Your task to perform on an android device: open app "Microsoft Outlook" (install if not already installed), go to login, and select forgot password Image 0: 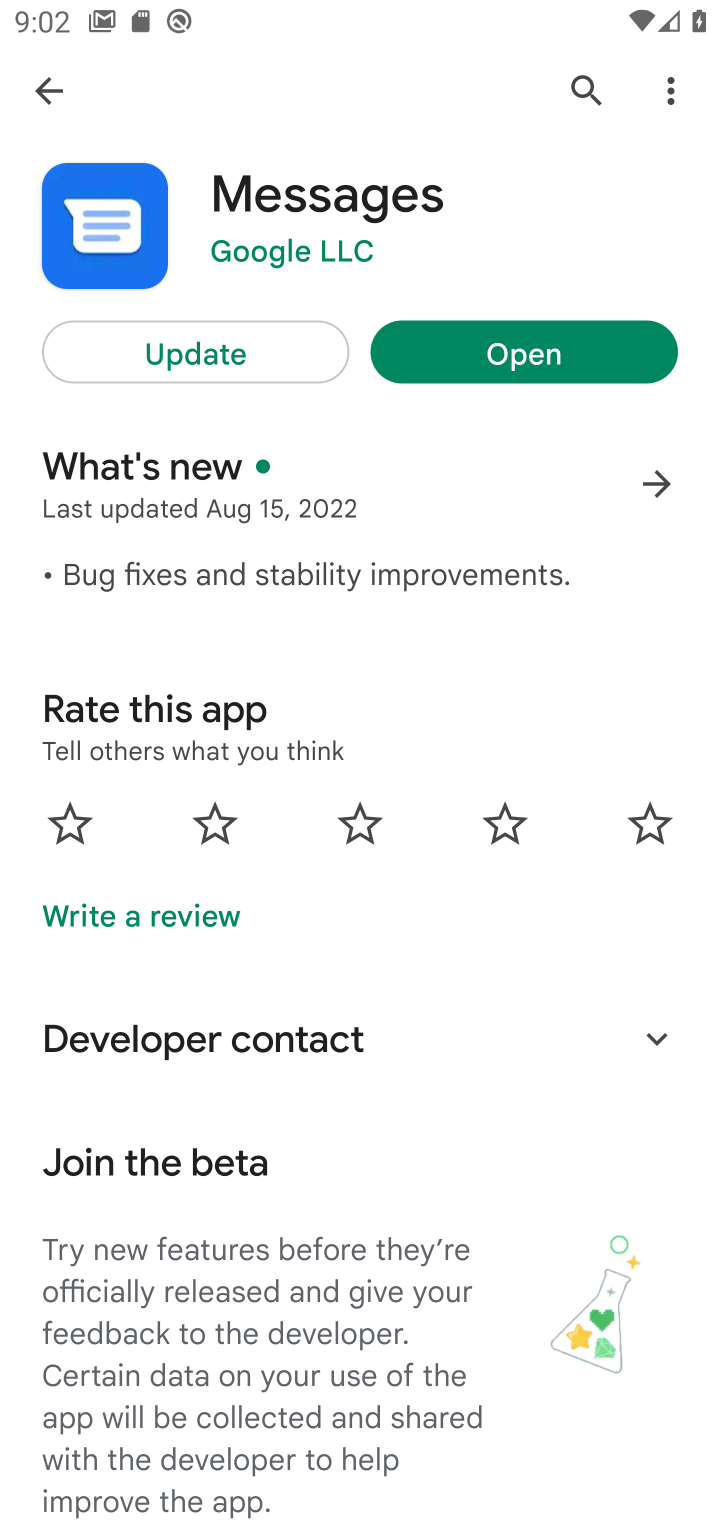
Step 0: press home button
Your task to perform on an android device: open app "Microsoft Outlook" (install if not already installed), go to login, and select forgot password Image 1: 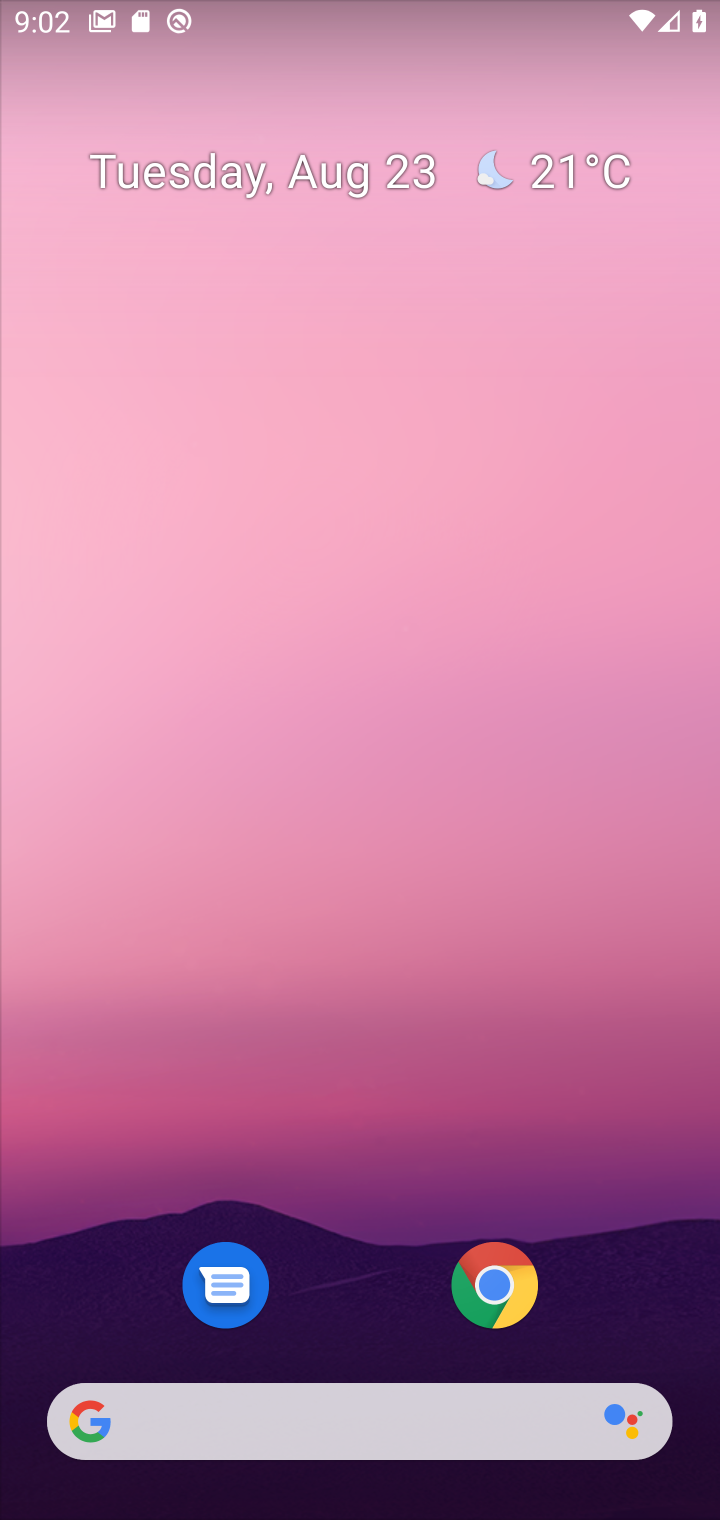
Step 1: drag from (669, 1332) to (587, 189)
Your task to perform on an android device: open app "Microsoft Outlook" (install if not already installed), go to login, and select forgot password Image 2: 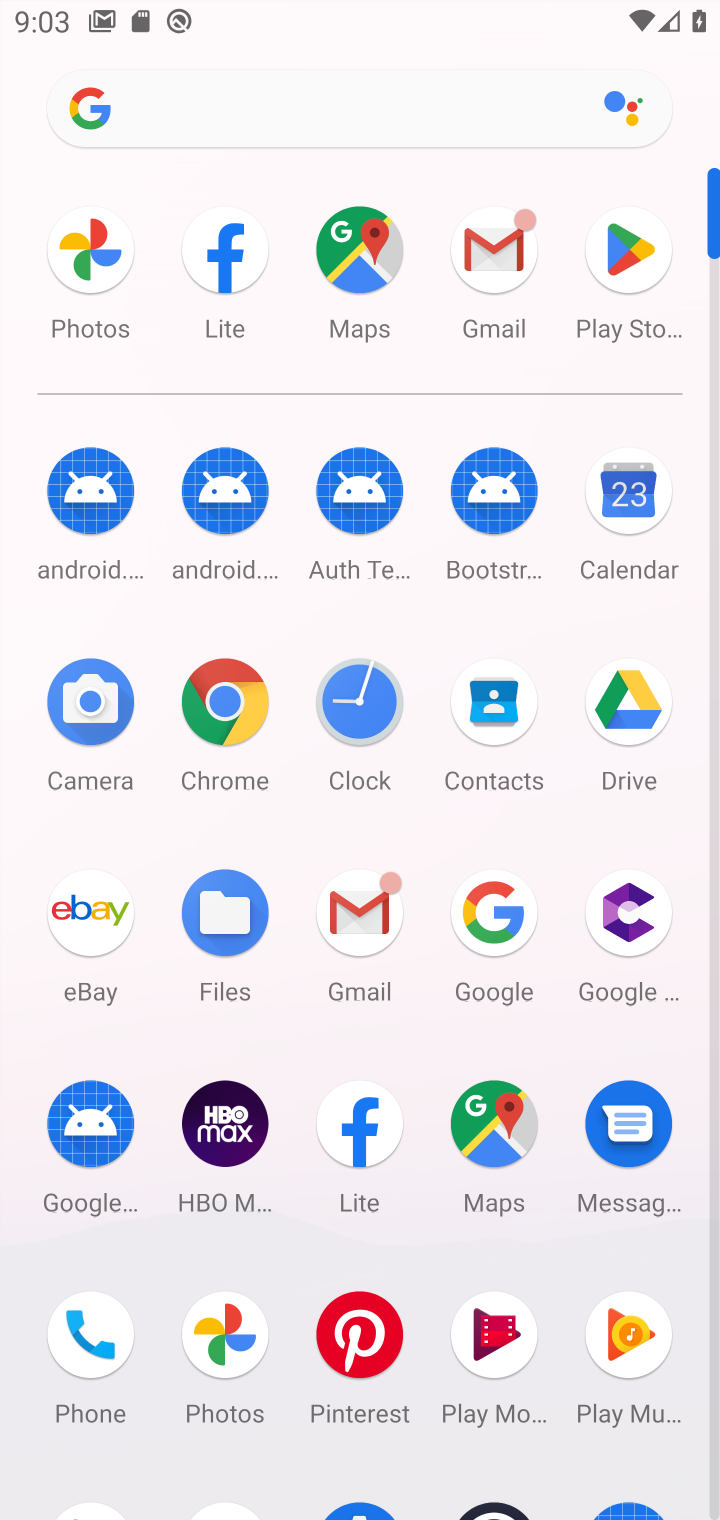
Step 2: drag from (291, 1447) to (277, 778)
Your task to perform on an android device: open app "Microsoft Outlook" (install if not already installed), go to login, and select forgot password Image 3: 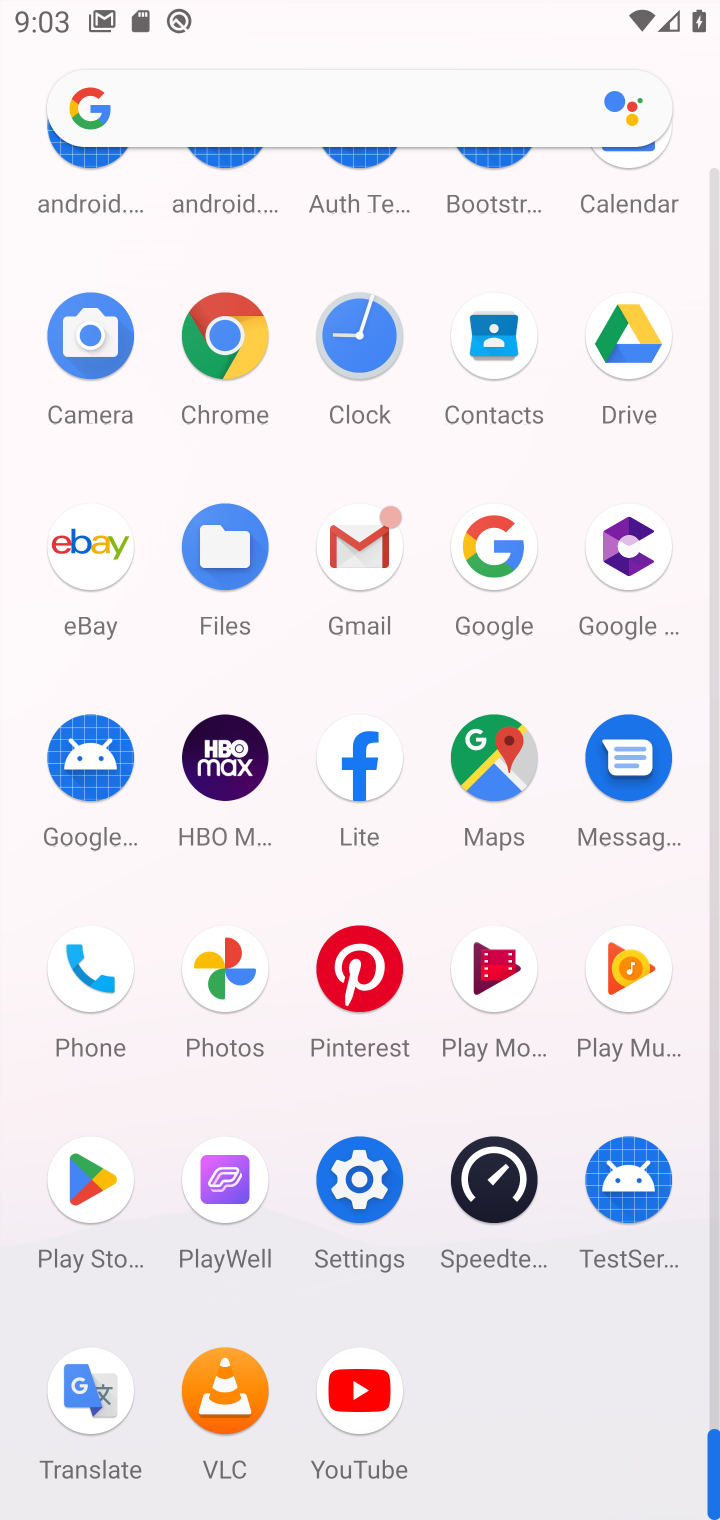
Step 3: click (98, 1182)
Your task to perform on an android device: open app "Microsoft Outlook" (install if not already installed), go to login, and select forgot password Image 4: 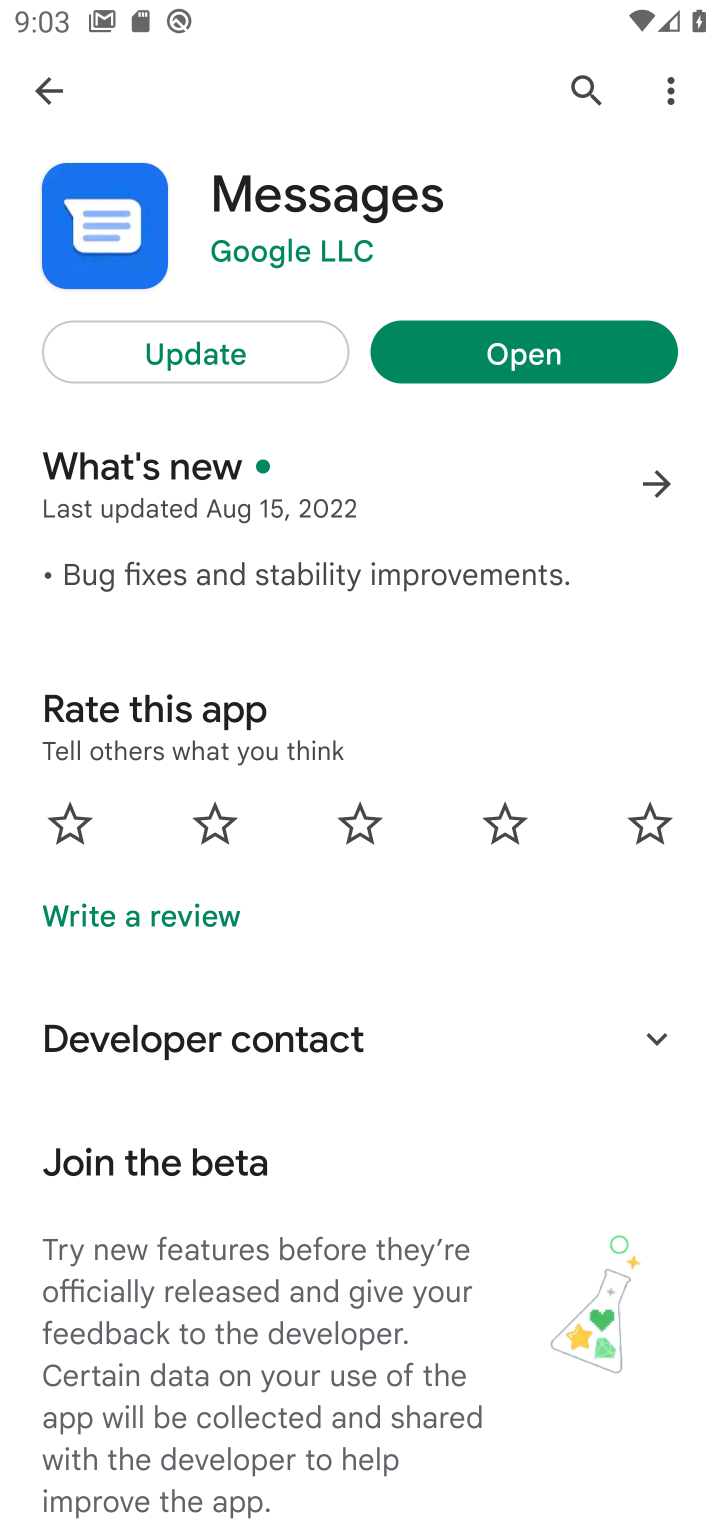
Step 4: click (584, 84)
Your task to perform on an android device: open app "Microsoft Outlook" (install if not already installed), go to login, and select forgot password Image 5: 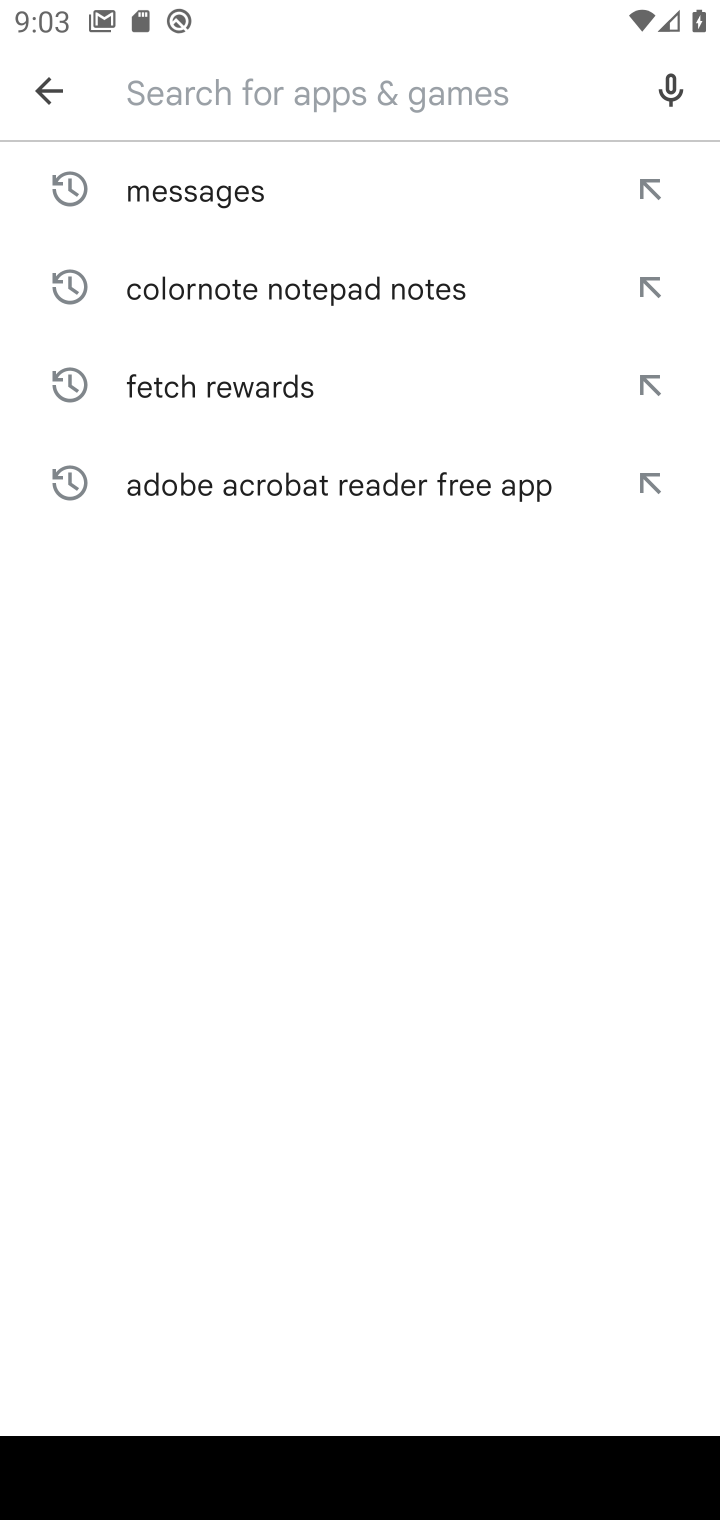
Step 5: type "Microsoft Outlook"
Your task to perform on an android device: open app "Microsoft Outlook" (install if not already installed), go to login, and select forgot password Image 6: 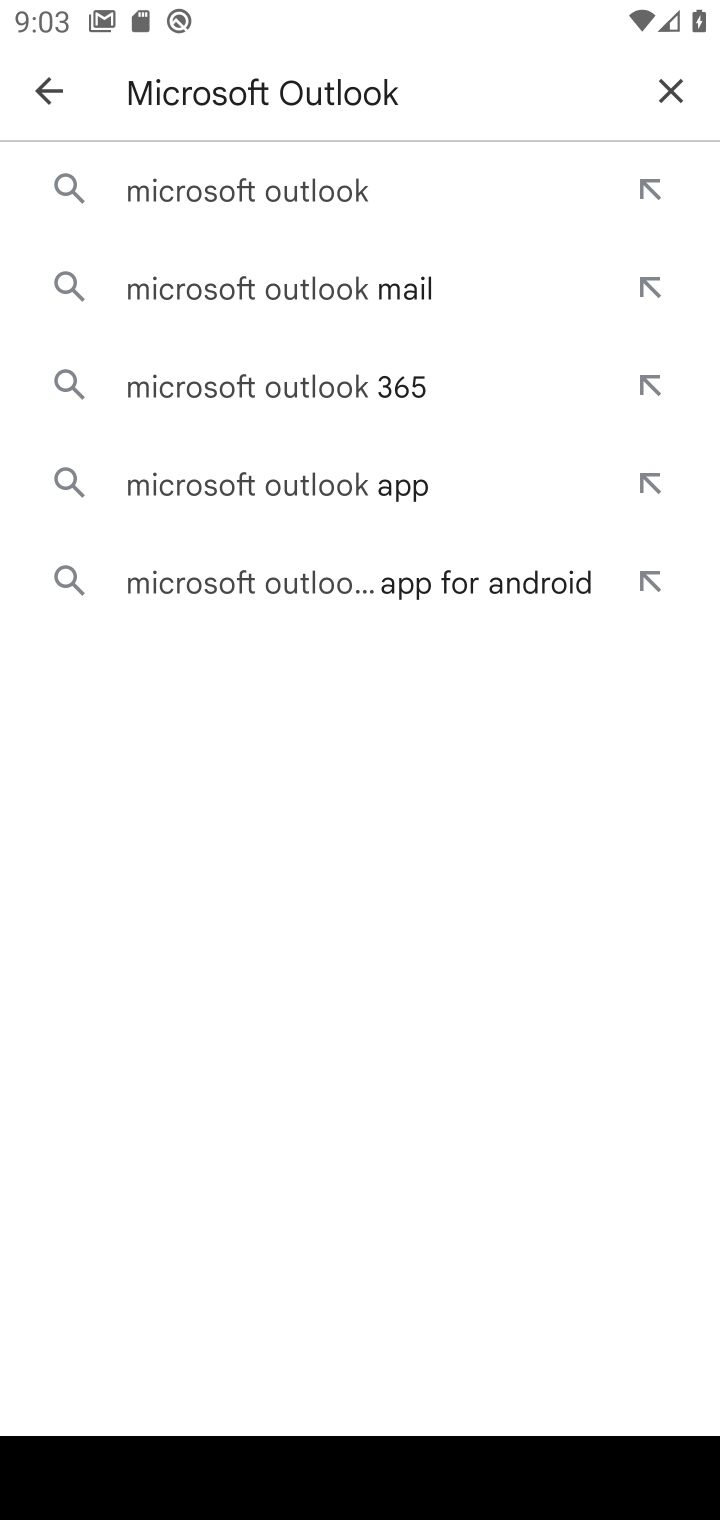
Step 6: click (256, 185)
Your task to perform on an android device: open app "Microsoft Outlook" (install if not already installed), go to login, and select forgot password Image 7: 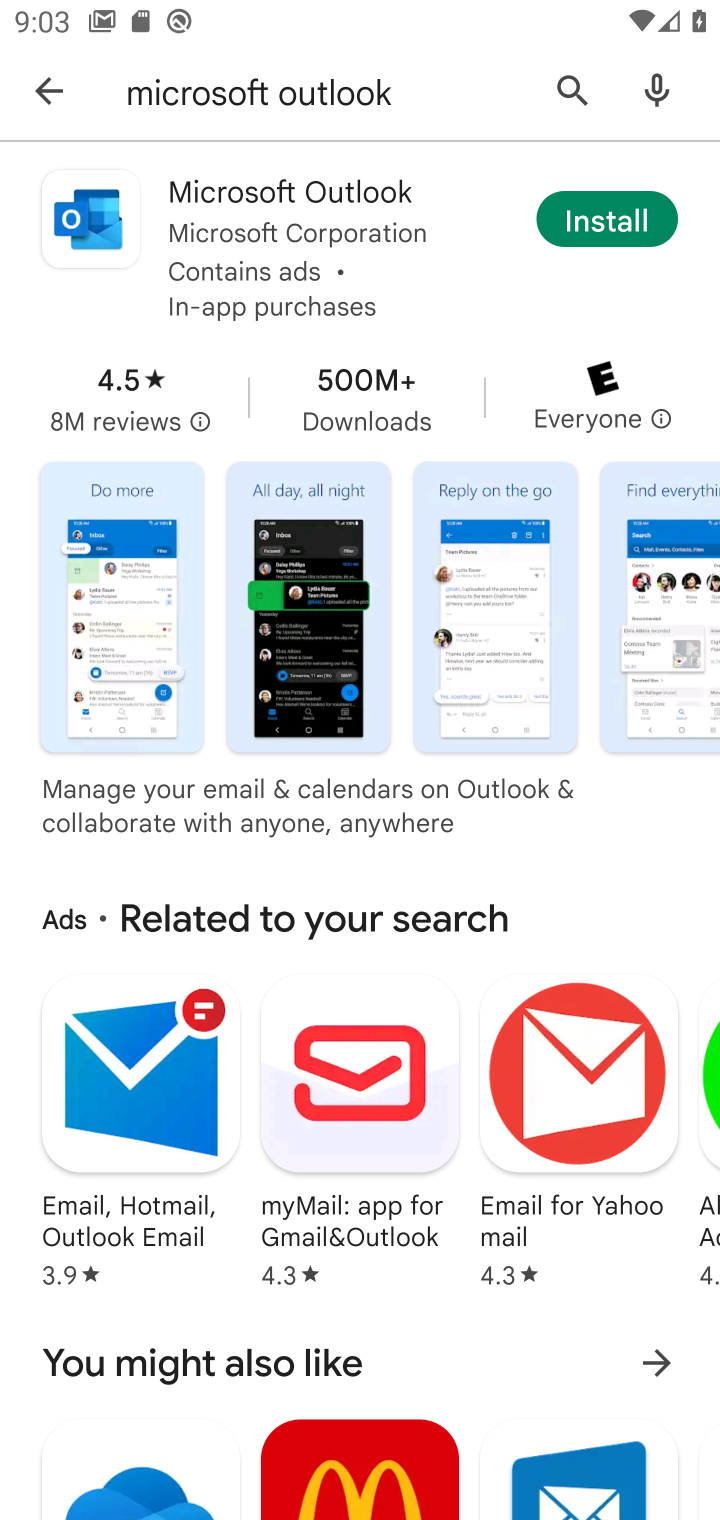
Step 7: click (234, 220)
Your task to perform on an android device: open app "Microsoft Outlook" (install if not already installed), go to login, and select forgot password Image 8: 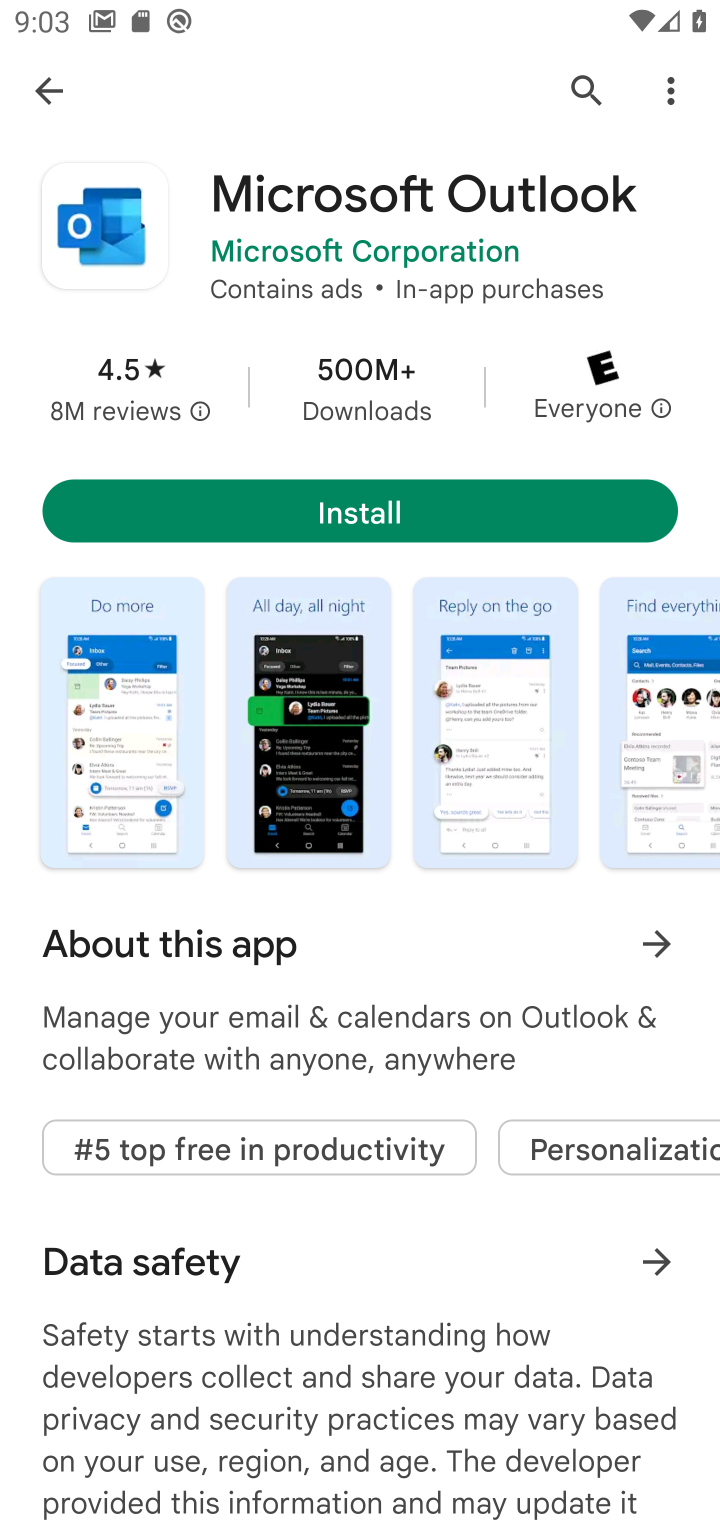
Step 8: click (376, 518)
Your task to perform on an android device: open app "Microsoft Outlook" (install if not already installed), go to login, and select forgot password Image 9: 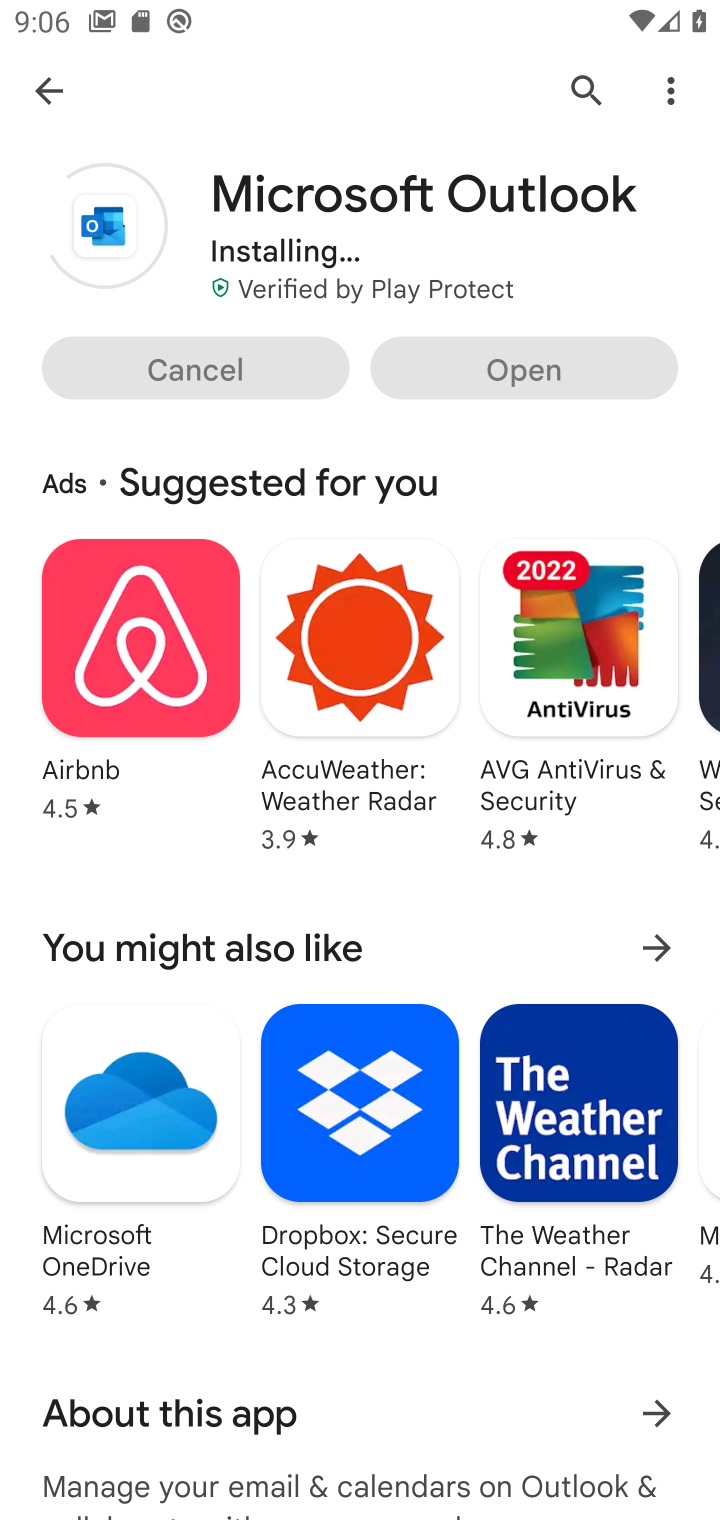
Step 9: click (361, 243)
Your task to perform on an android device: open app "Microsoft Outlook" (install if not already installed), go to login, and select forgot password Image 10: 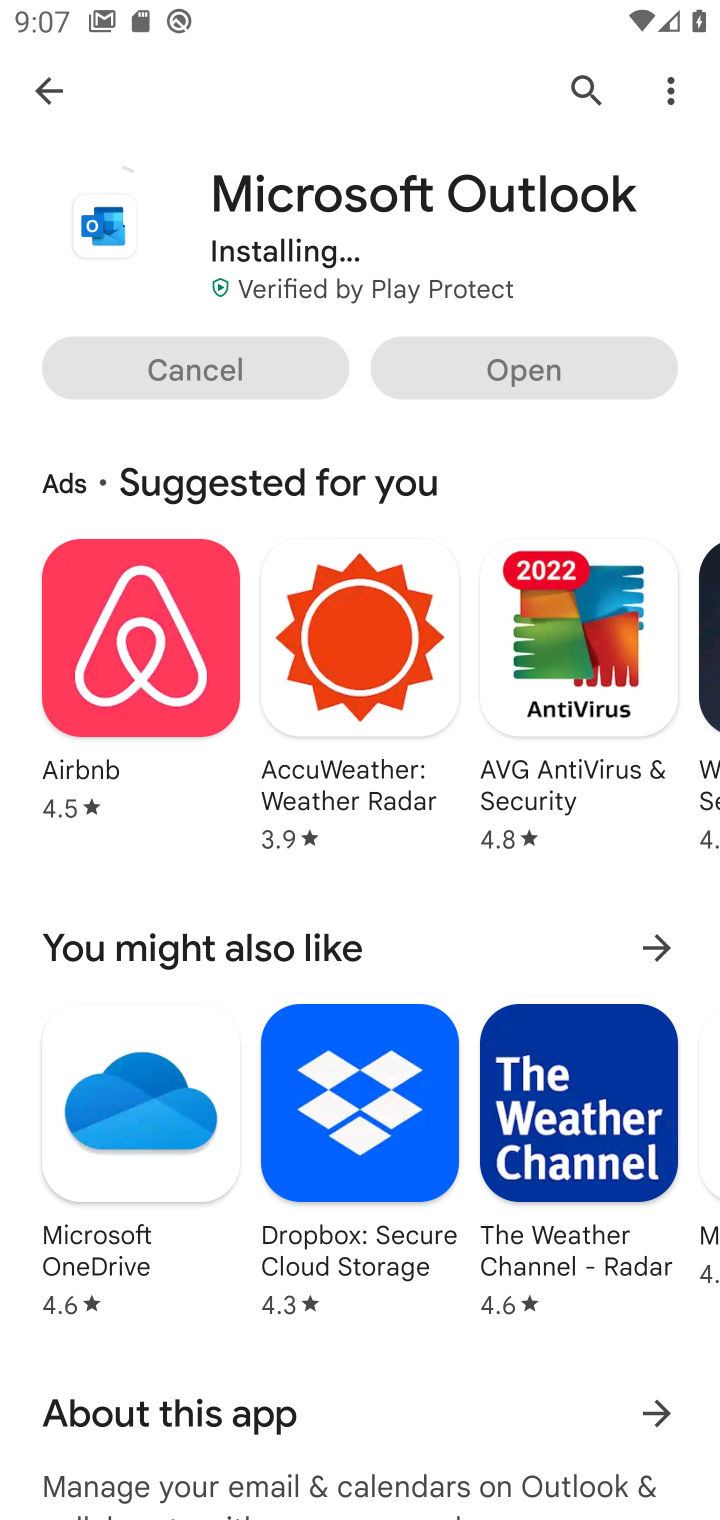
Step 10: click (389, 182)
Your task to perform on an android device: open app "Microsoft Outlook" (install if not already installed), go to login, and select forgot password Image 11: 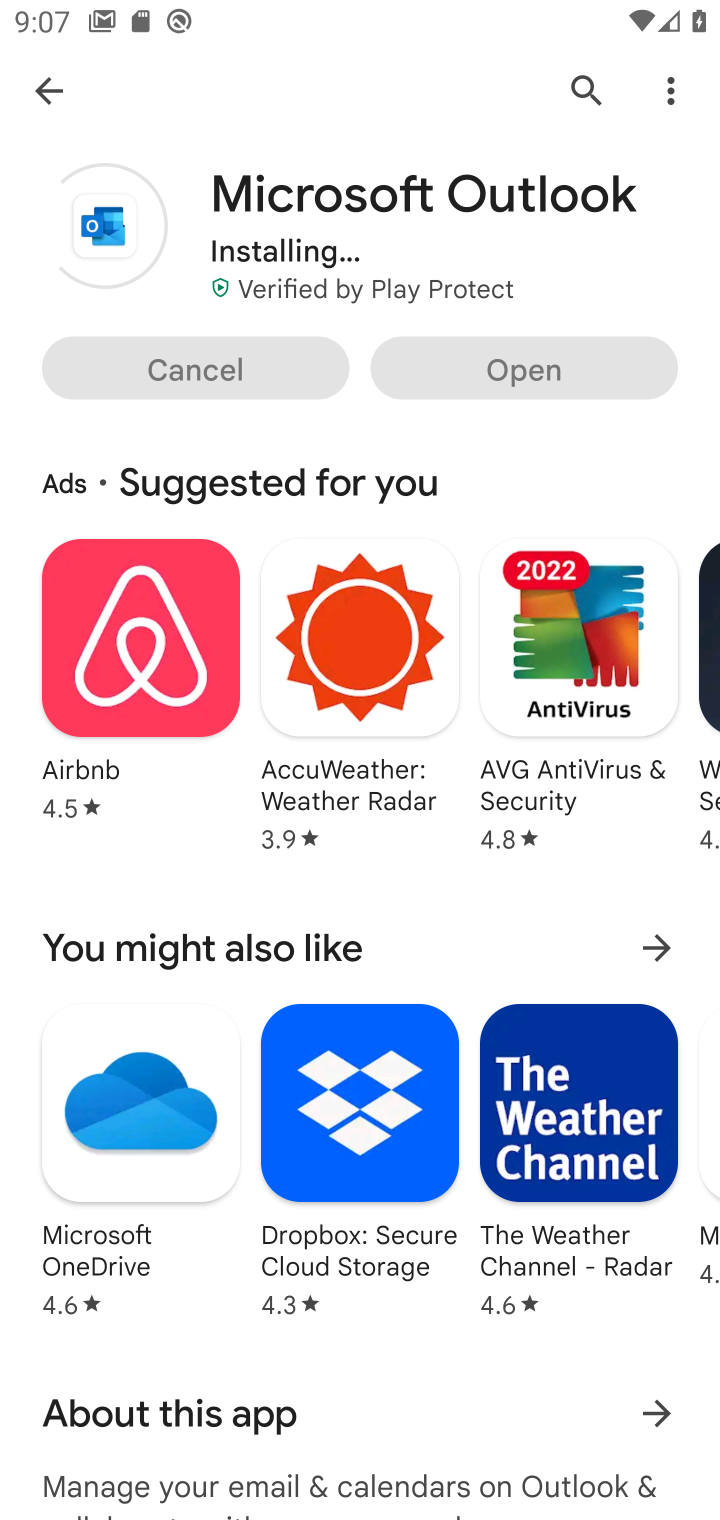
Step 11: drag from (390, 185) to (375, 299)
Your task to perform on an android device: open app "Microsoft Outlook" (install if not already installed), go to login, and select forgot password Image 12: 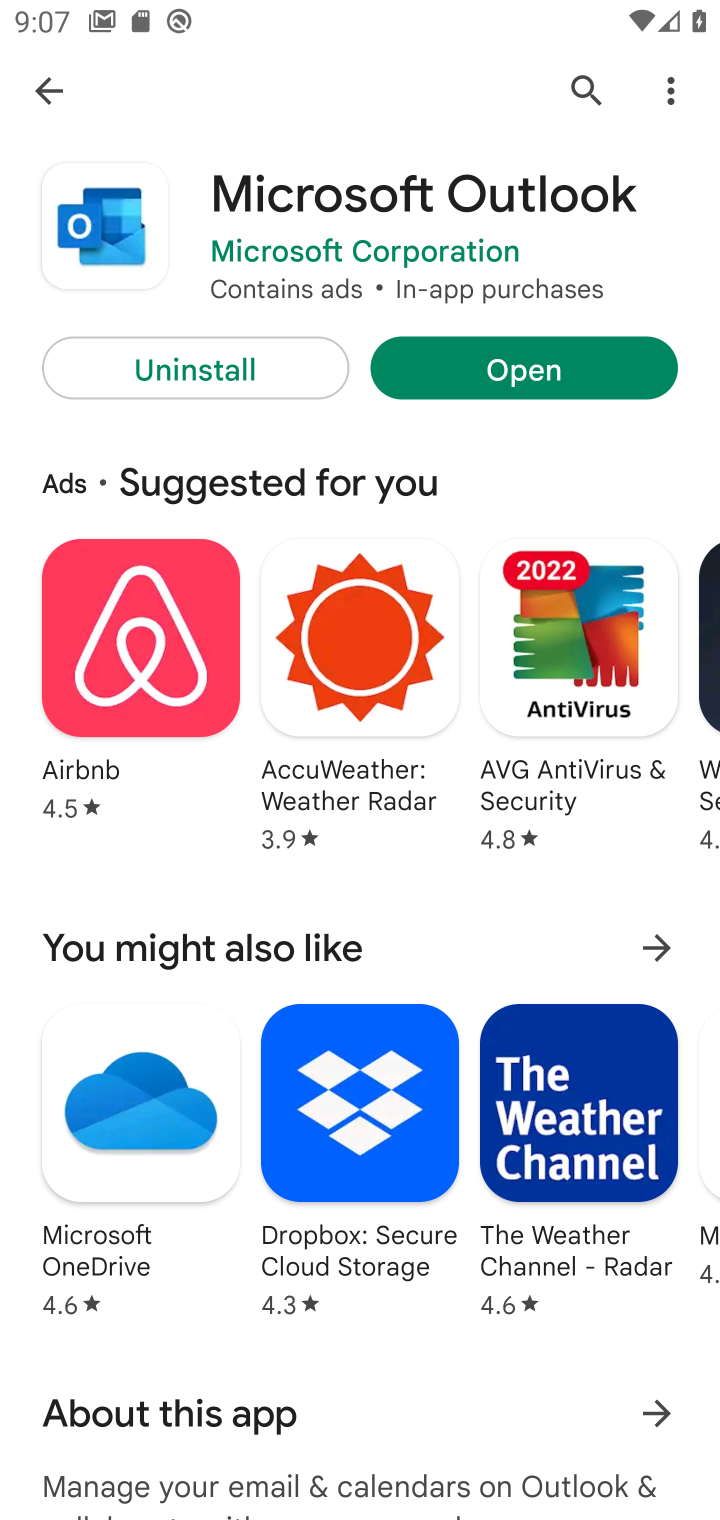
Step 12: click (507, 370)
Your task to perform on an android device: open app "Microsoft Outlook" (install if not already installed), go to login, and select forgot password Image 13: 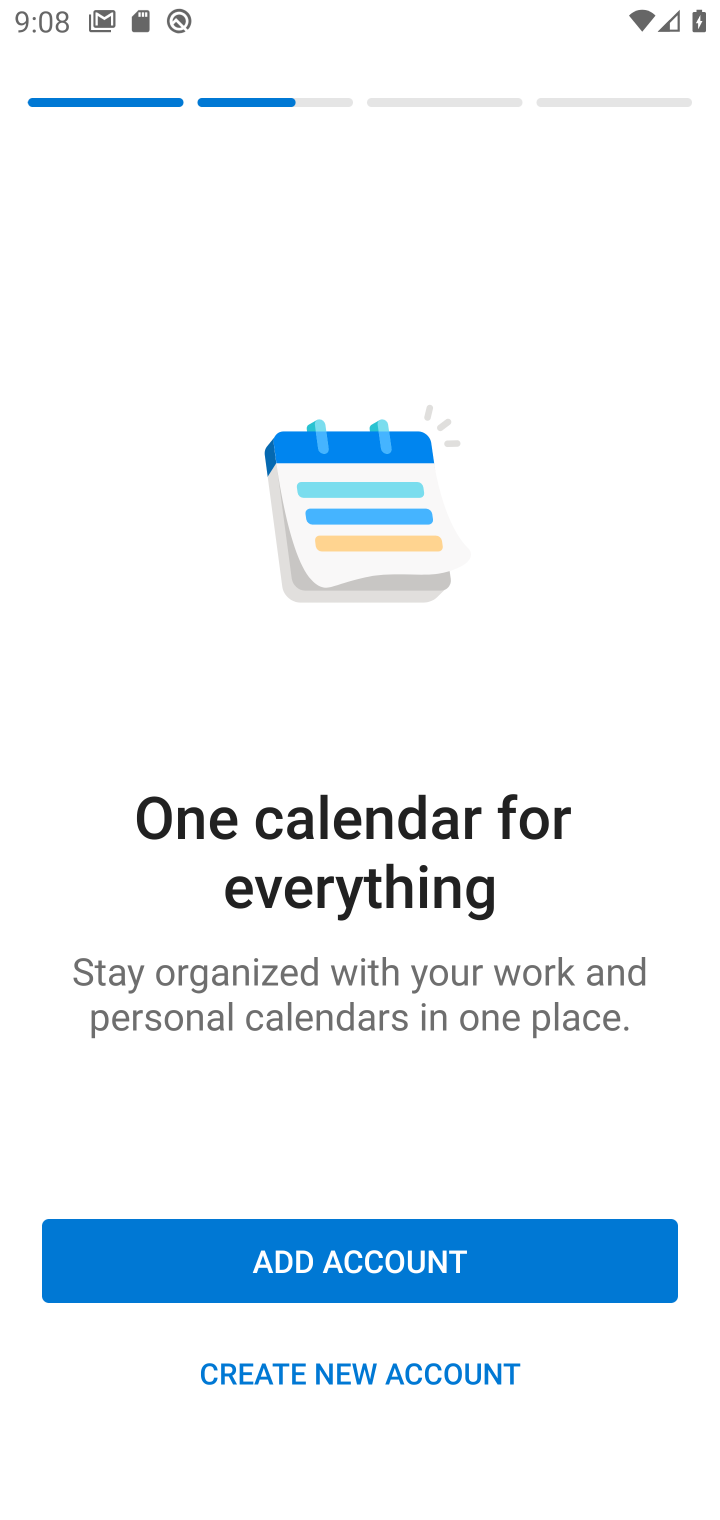
Step 13: click (350, 1258)
Your task to perform on an android device: open app "Microsoft Outlook" (install if not already installed), go to login, and select forgot password Image 14: 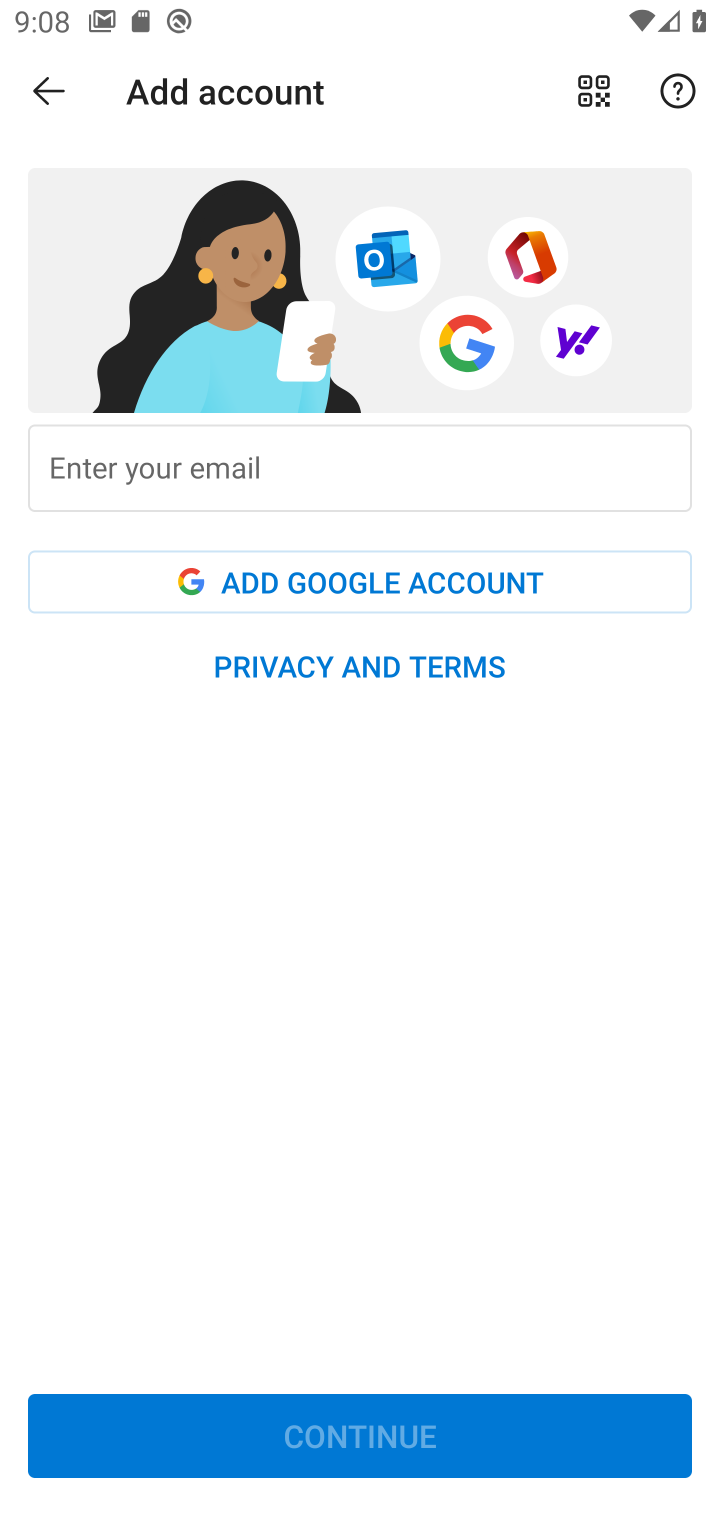
Step 14: task complete